Your task to perform on an android device: install app "Flipkart Online Shopping App" Image 0: 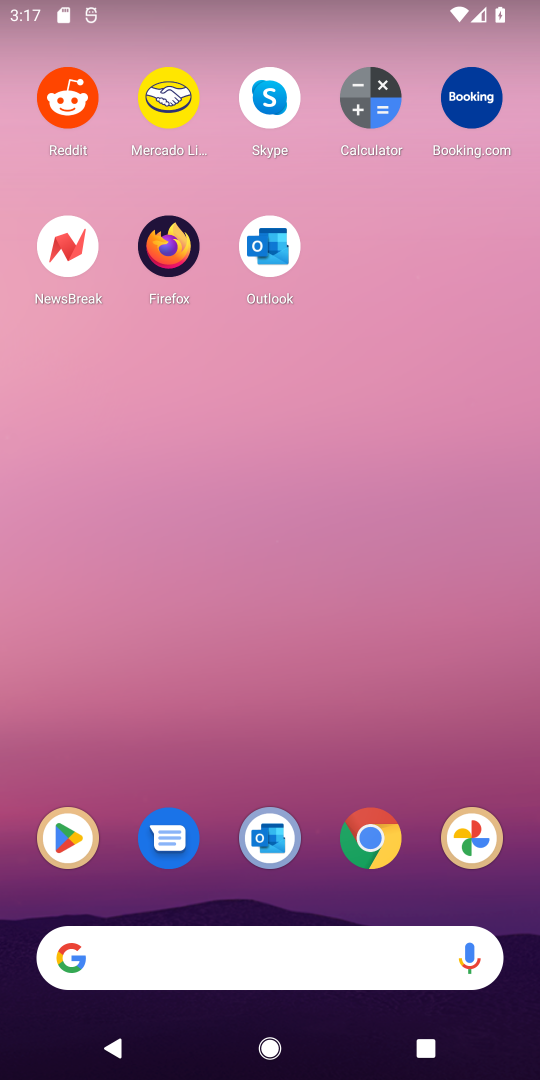
Step 0: click (56, 852)
Your task to perform on an android device: install app "Flipkart Online Shopping App" Image 1: 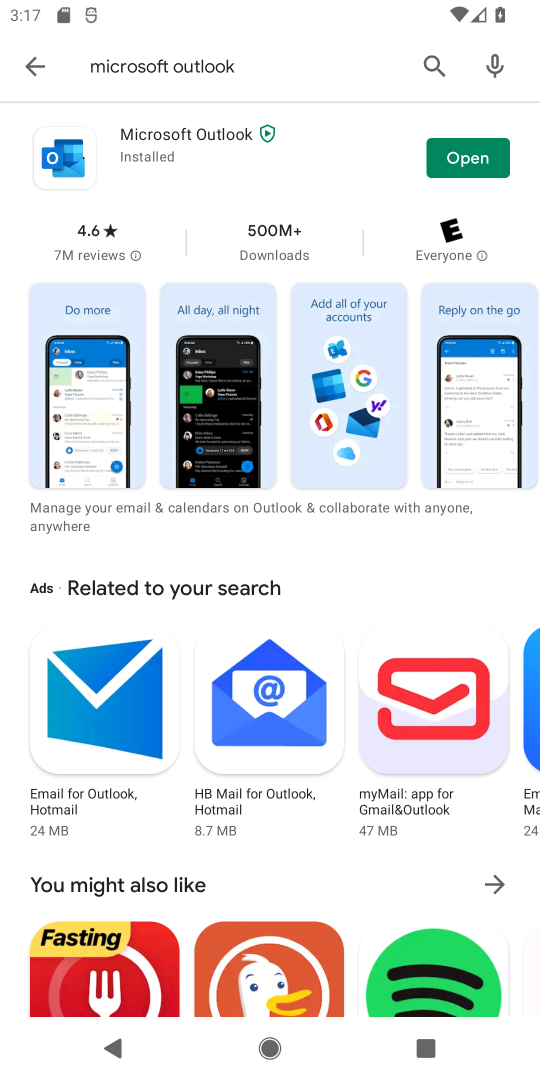
Step 1: click (438, 81)
Your task to perform on an android device: install app "Flipkart Online Shopping App" Image 2: 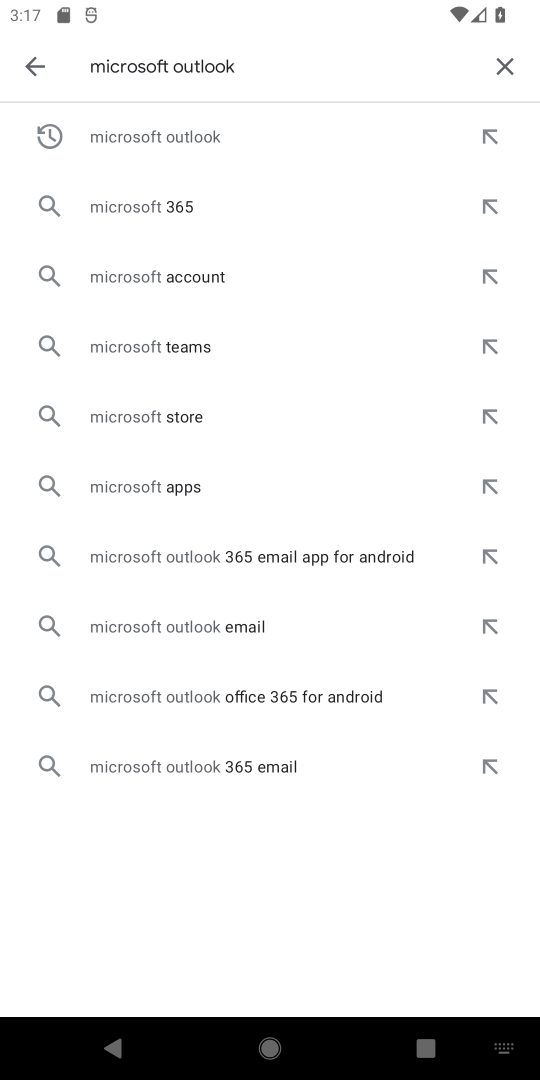
Step 2: click (511, 70)
Your task to perform on an android device: install app "Flipkart Online Shopping App" Image 3: 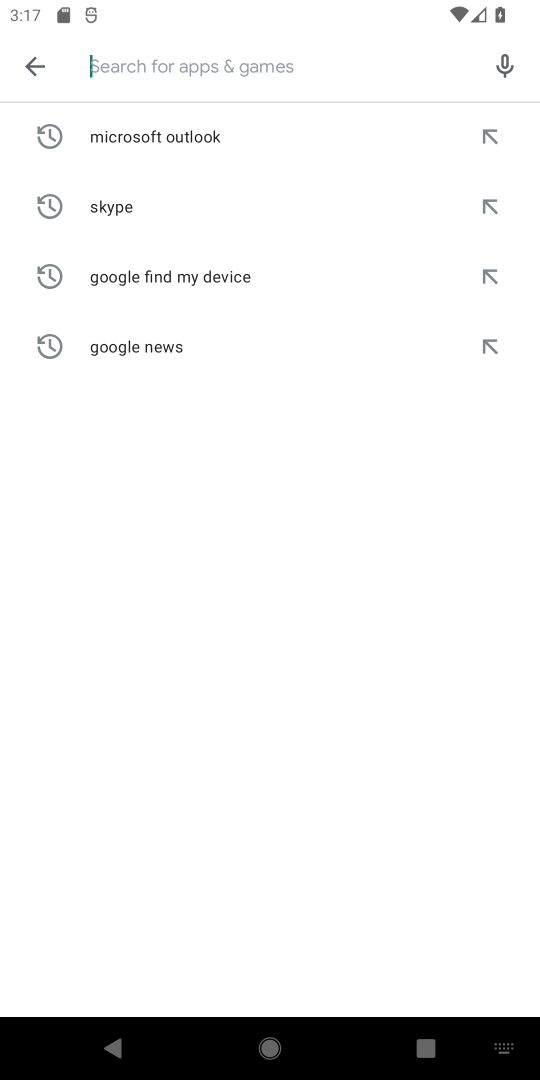
Step 3: click (297, 57)
Your task to perform on an android device: install app "Flipkart Online Shopping App" Image 4: 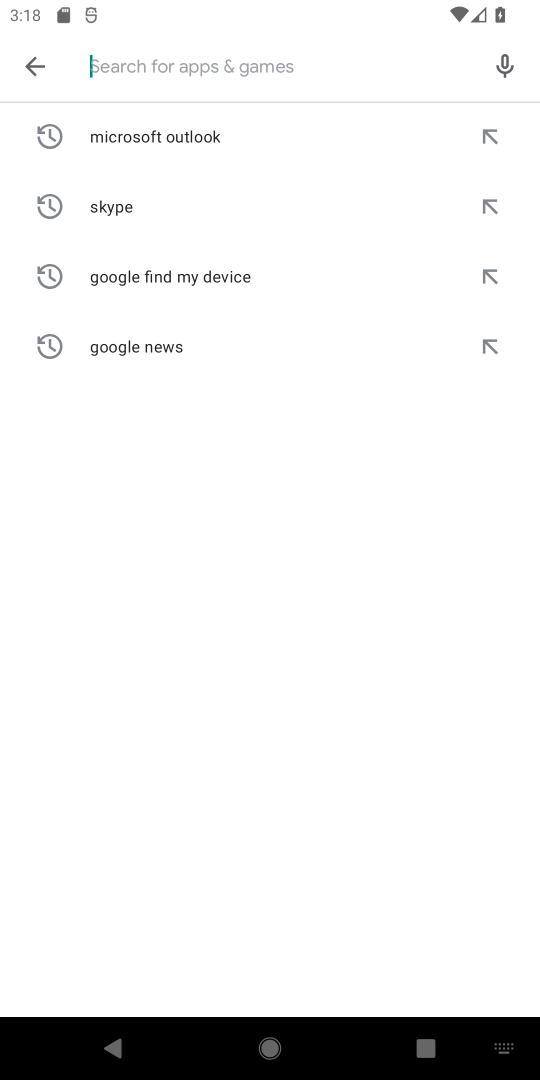
Step 4: type "Flipkart Online Shopping App"
Your task to perform on an android device: install app "Flipkart Online Shopping App" Image 5: 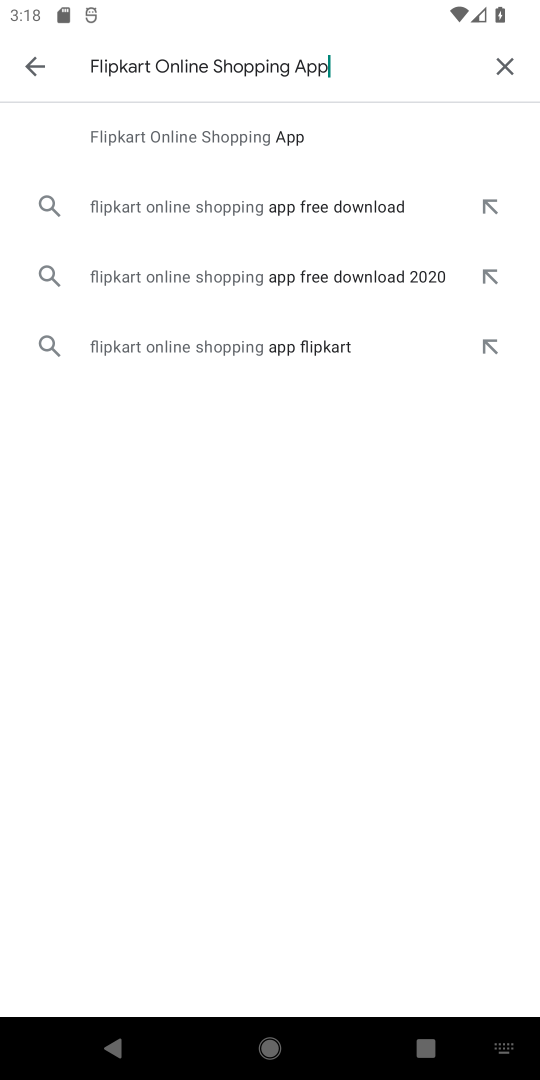
Step 5: type ""
Your task to perform on an android device: install app "Flipkart Online Shopping App" Image 6: 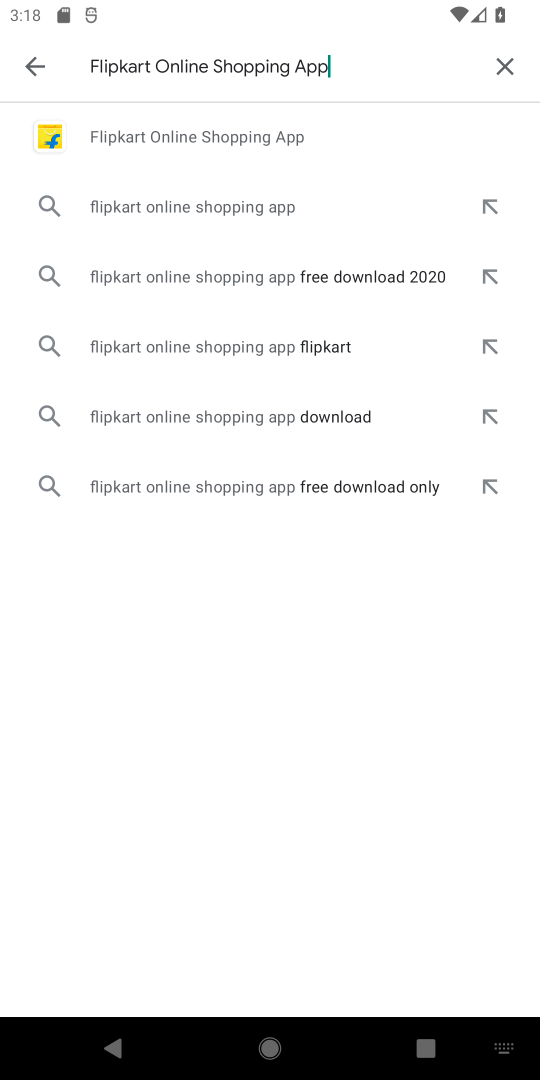
Step 6: click (321, 157)
Your task to perform on an android device: install app "Flipkart Online Shopping App" Image 7: 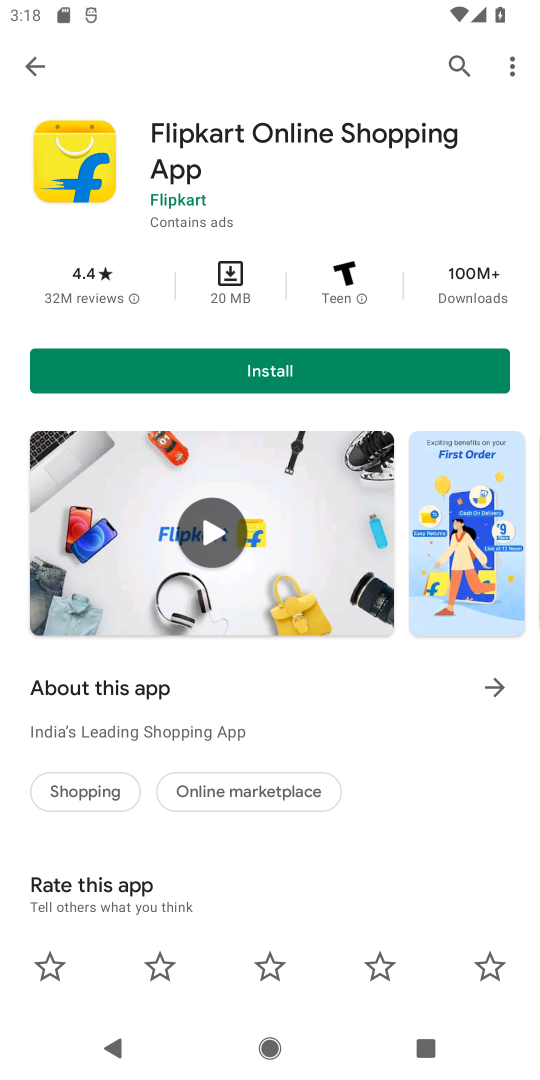
Step 7: click (386, 368)
Your task to perform on an android device: install app "Flipkart Online Shopping App" Image 8: 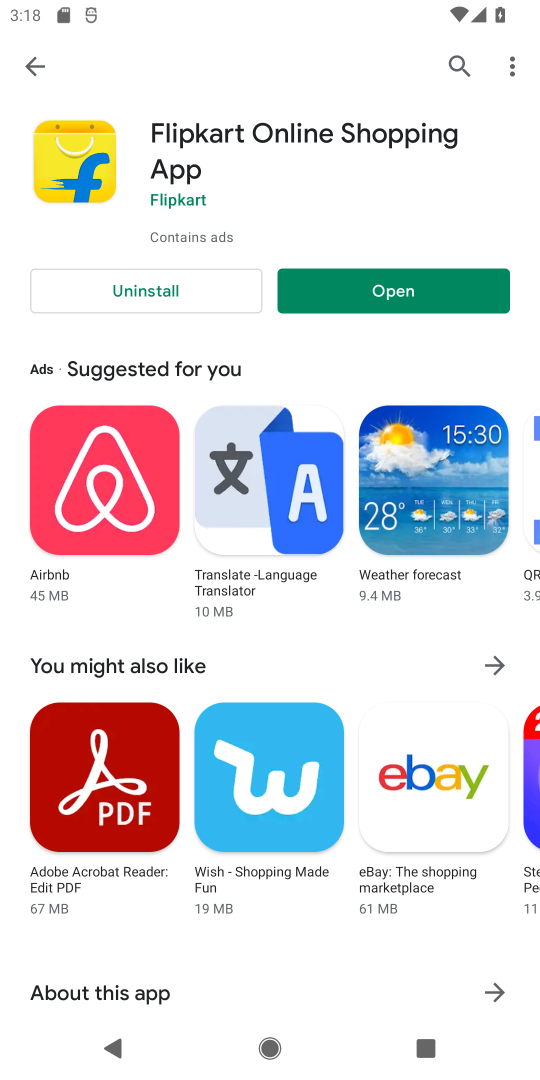
Step 8: task complete